Your task to perform on an android device: turn on translation in the chrome app Image 0: 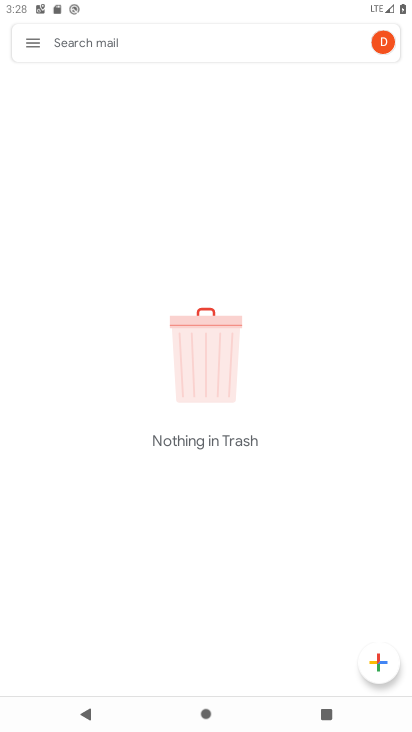
Step 0: press home button
Your task to perform on an android device: turn on translation in the chrome app Image 1: 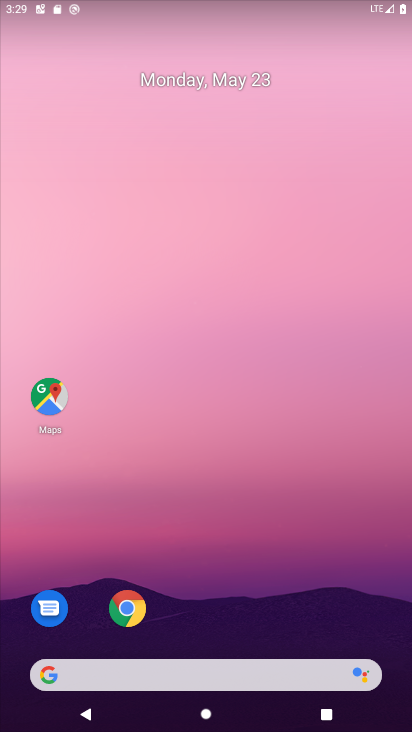
Step 1: click (143, 608)
Your task to perform on an android device: turn on translation in the chrome app Image 2: 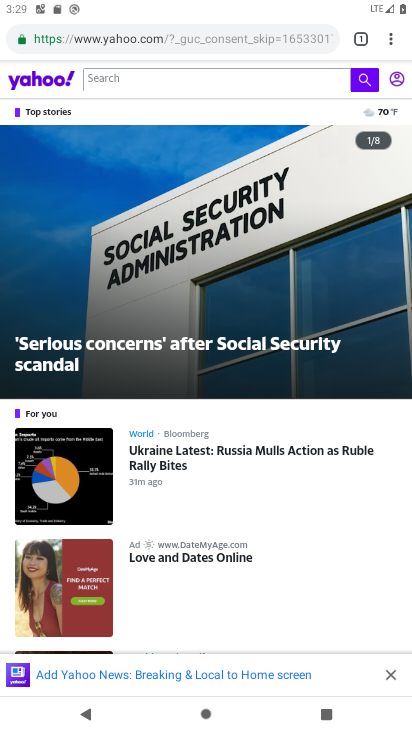
Step 2: click (393, 39)
Your task to perform on an android device: turn on translation in the chrome app Image 3: 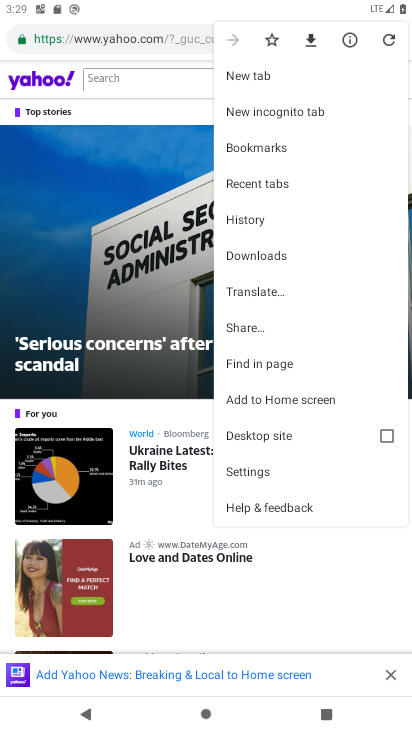
Step 3: click (321, 475)
Your task to perform on an android device: turn on translation in the chrome app Image 4: 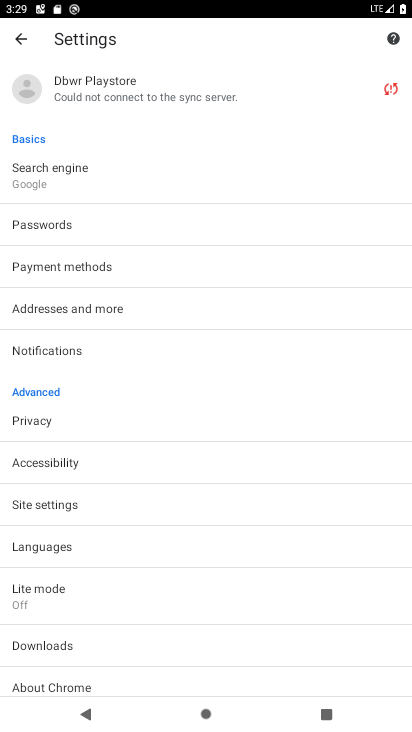
Step 4: click (103, 553)
Your task to perform on an android device: turn on translation in the chrome app Image 5: 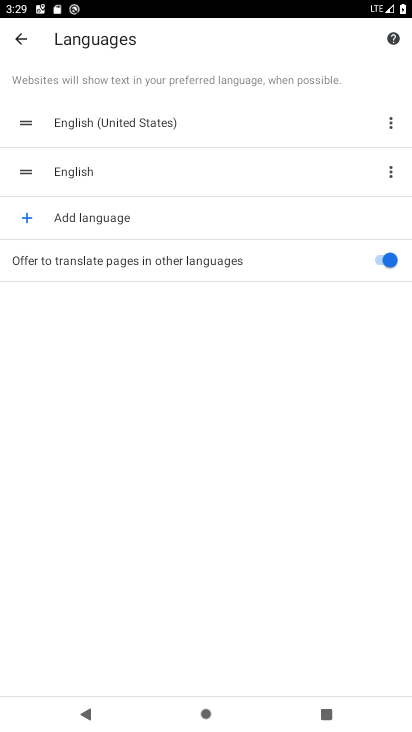
Step 5: task complete